Your task to perform on an android device: Toggle the flashlight Image 0: 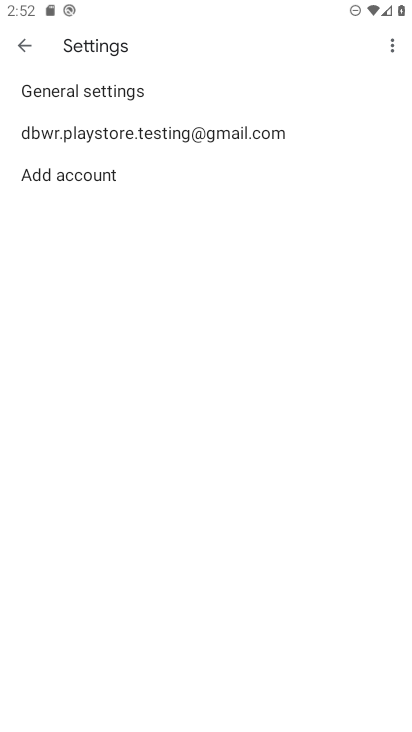
Step 0: press home button
Your task to perform on an android device: Toggle the flashlight Image 1: 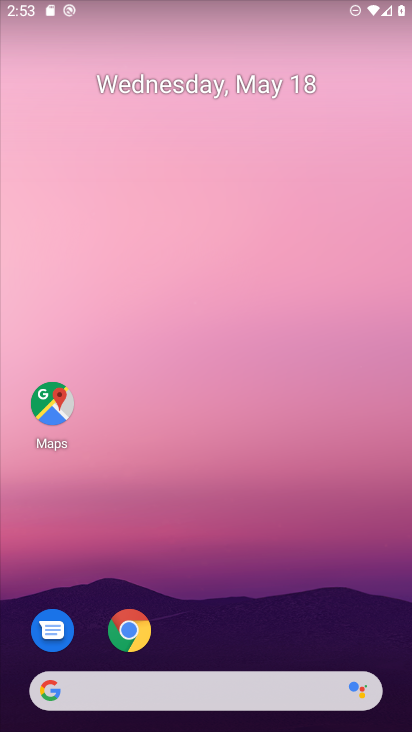
Step 1: drag from (244, 537) to (275, 128)
Your task to perform on an android device: Toggle the flashlight Image 2: 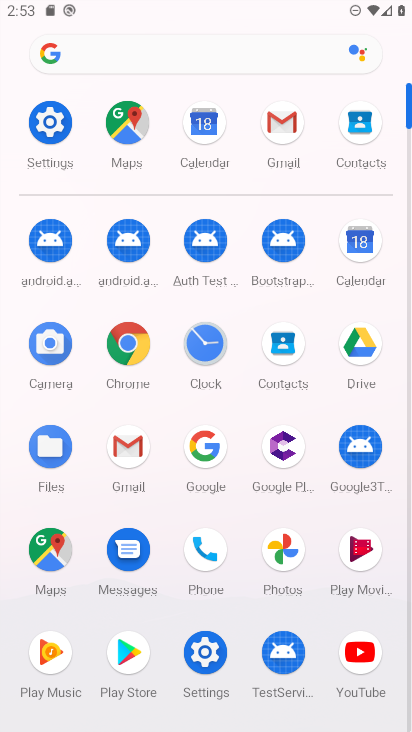
Step 2: click (200, 644)
Your task to perform on an android device: Toggle the flashlight Image 3: 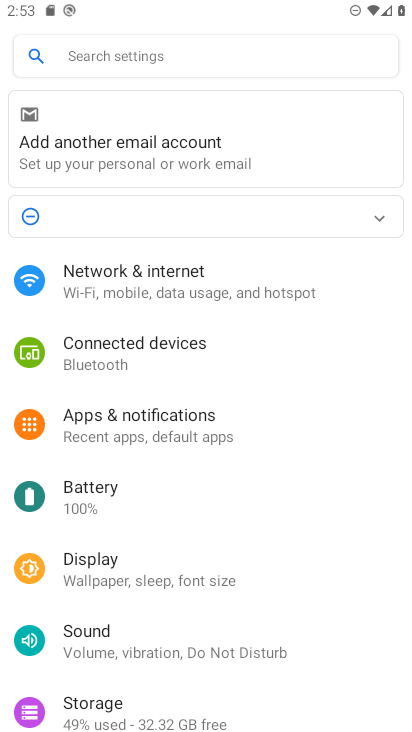
Step 3: click (156, 55)
Your task to perform on an android device: Toggle the flashlight Image 4: 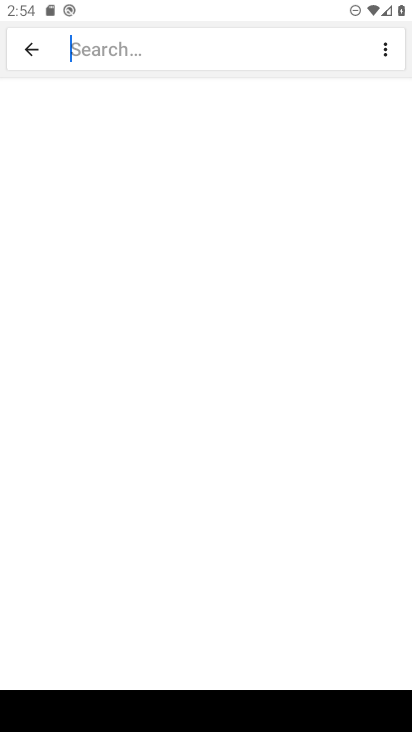
Step 4: type "flashlight"
Your task to perform on an android device: Toggle the flashlight Image 5: 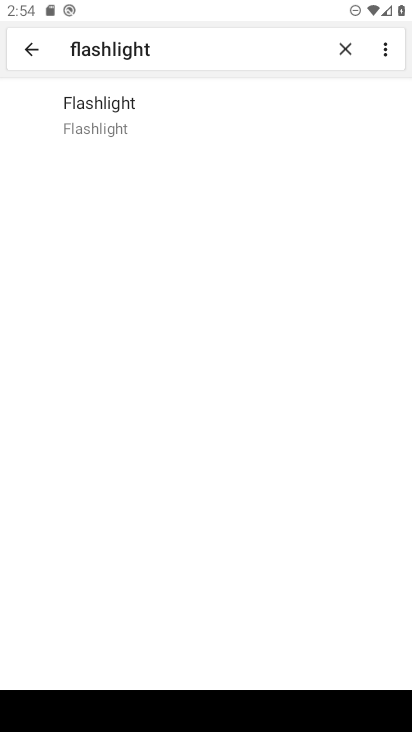
Step 5: click (145, 113)
Your task to perform on an android device: Toggle the flashlight Image 6: 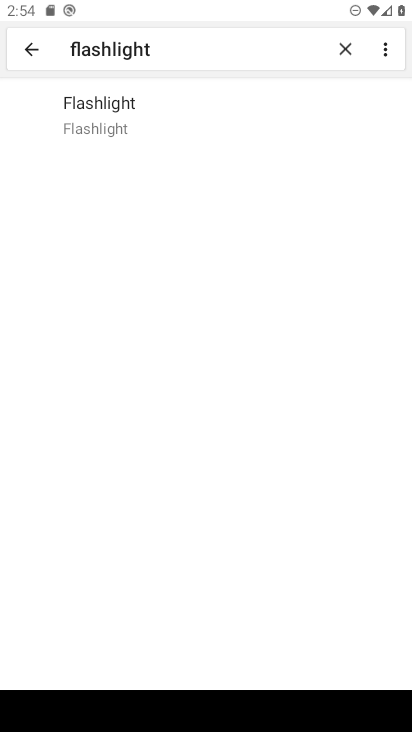
Step 6: task complete